Your task to perform on an android device: Go to Wikipedia Image 0: 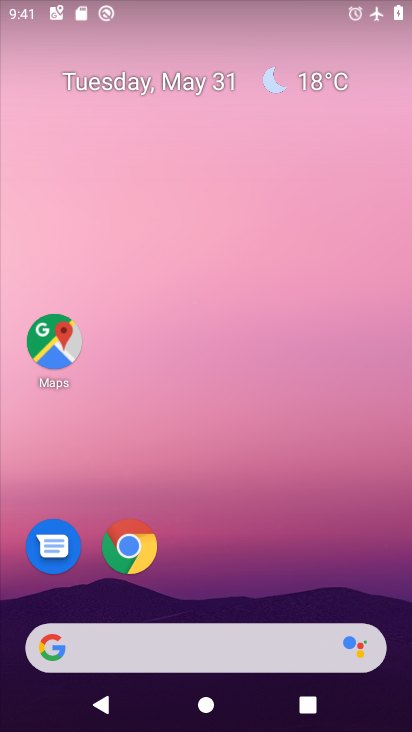
Step 0: click (125, 560)
Your task to perform on an android device: Go to Wikipedia Image 1: 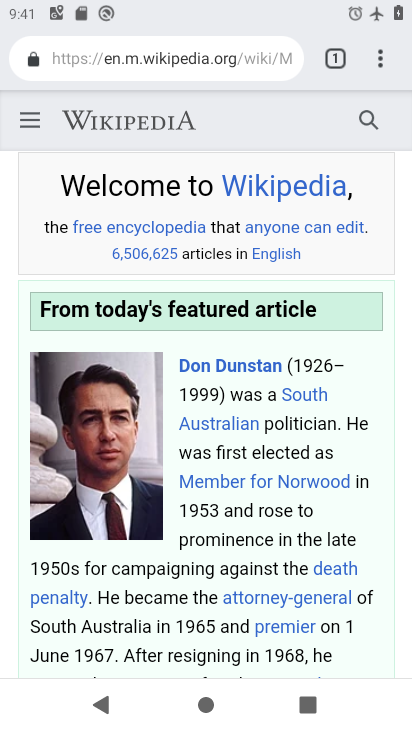
Step 1: task complete